Your task to perform on an android device: toggle javascript in the chrome app Image 0: 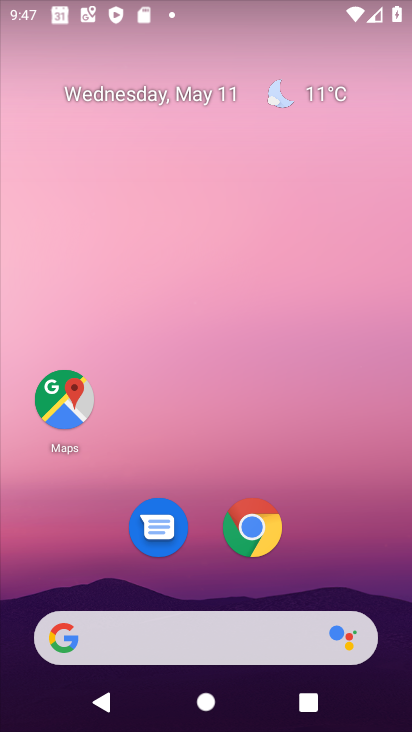
Step 0: drag from (372, 561) to (373, 63)
Your task to perform on an android device: toggle javascript in the chrome app Image 1: 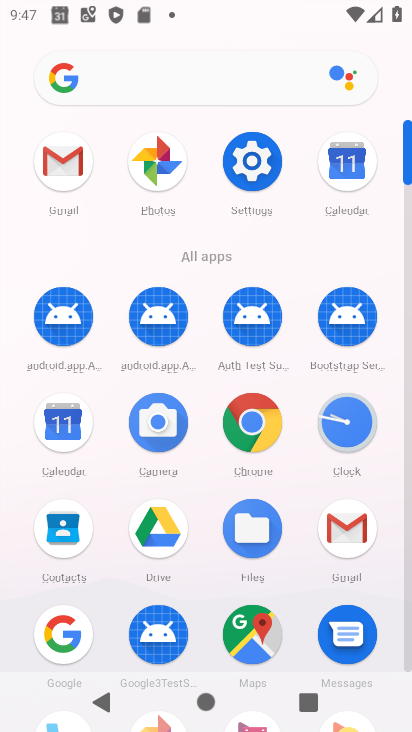
Step 1: click (250, 420)
Your task to perform on an android device: toggle javascript in the chrome app Image 2: 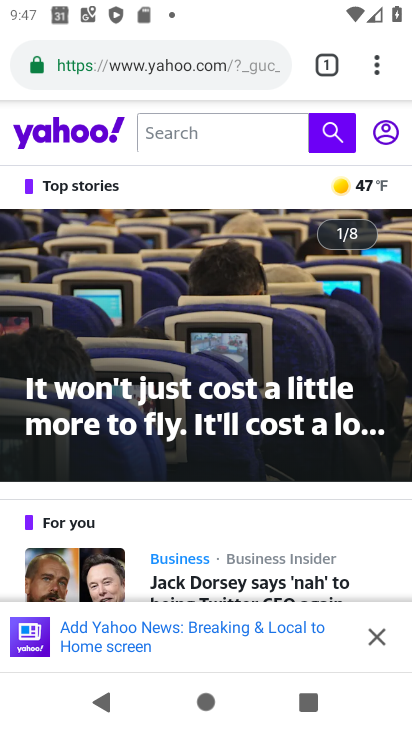
Step 2: drag from (390, 69) to (175, 576)
Your task to perform on an android device: toggle javascript in the chrome app Image 3: 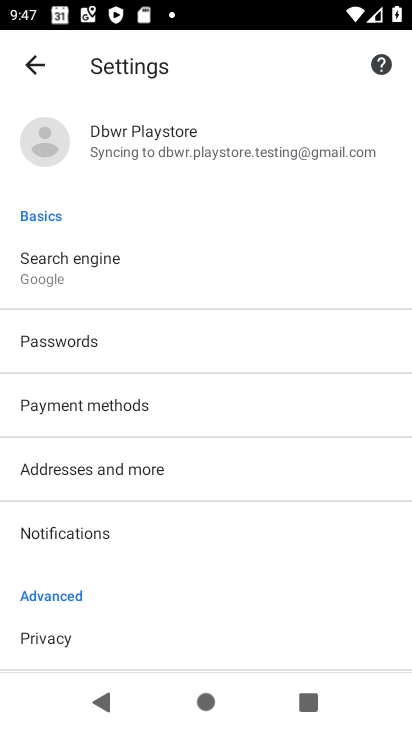
Step 3: drag from (167, 604) to (260, 164)
Your task to perform on an android device: toggle javascript in the chrome app Image 4: 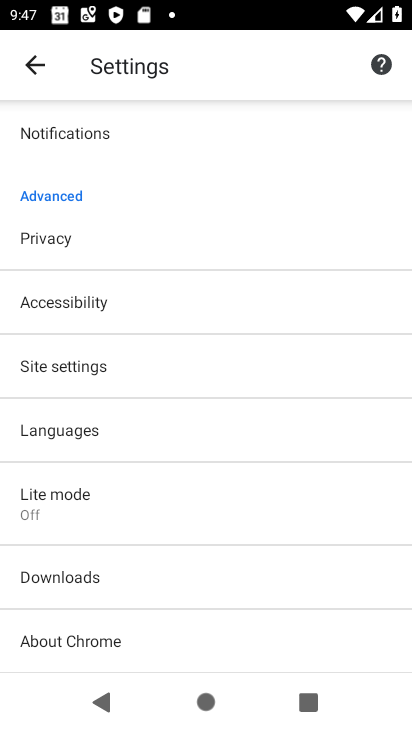
Step 4: click (106, 382)
Your task to perform on an android device: toggle javascript in the chrome app Image 5: 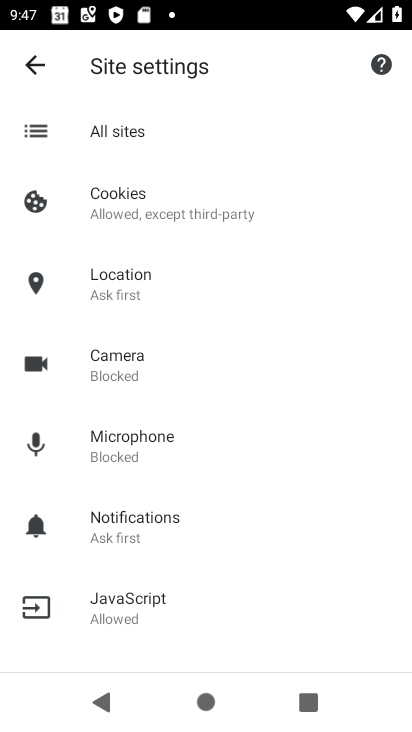
Step 5: drag from (196, 580) to (245, 160)
Your task to perform on an android device: toggle javascript in the chrome app Image 6: 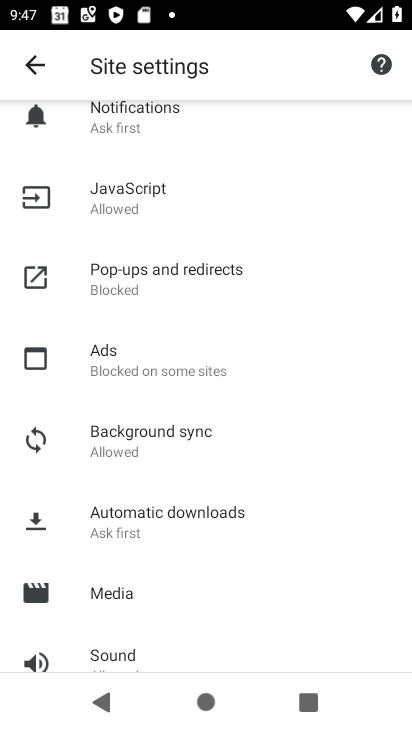
Step 6: click (120, 187)
Your task to perform on an android device: toggle javascript in the chrome app Image 7: 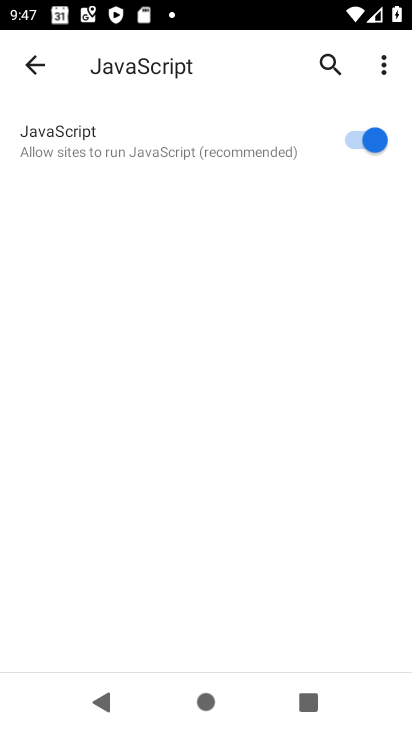
Step 7: click (346, 139)
Your task to perform on an android device: toggle javascript in the chrome app Image 8: 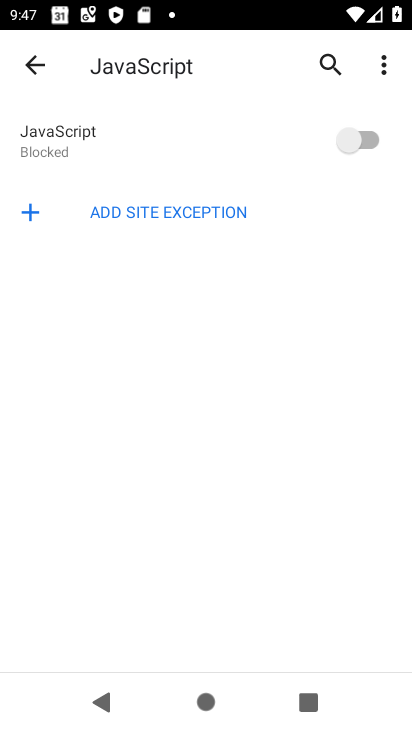
Step 8: task complete